Your task to perform on an android device: change the clock display to show seconds Image 0: 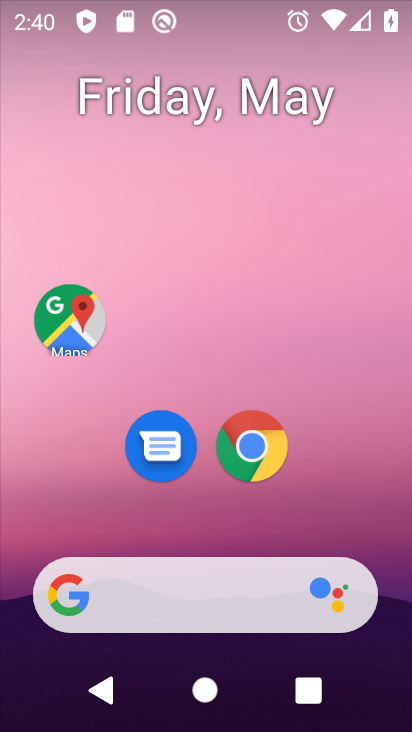
Step 0: drag from (389, 555) to (315, 162)
Your task to perform on an android device: change the clock display to show seconds Image 1: 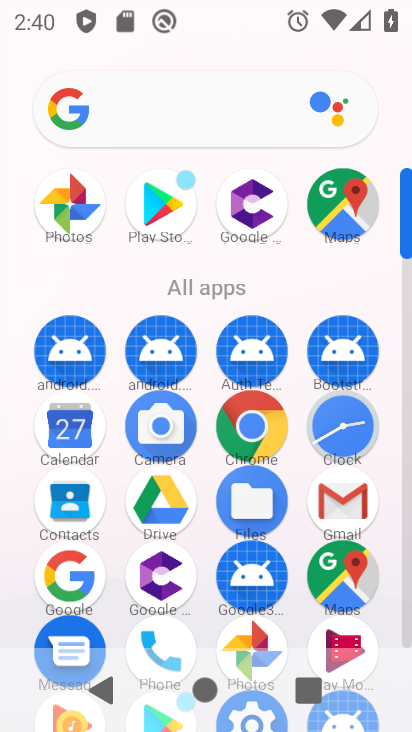
Step 1: click (349, 431)
Your task to perform on an android device: change the clock display to show seconds Image 2: 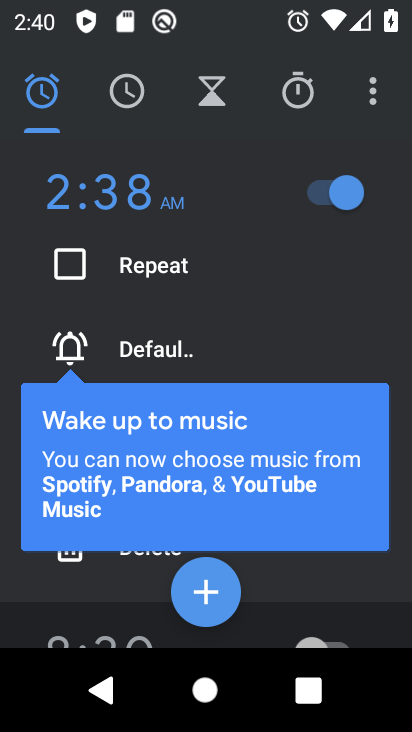
Step 2: click (362, 98)
Your task to perform on an android device: change the clock display to show seconds Image 3: 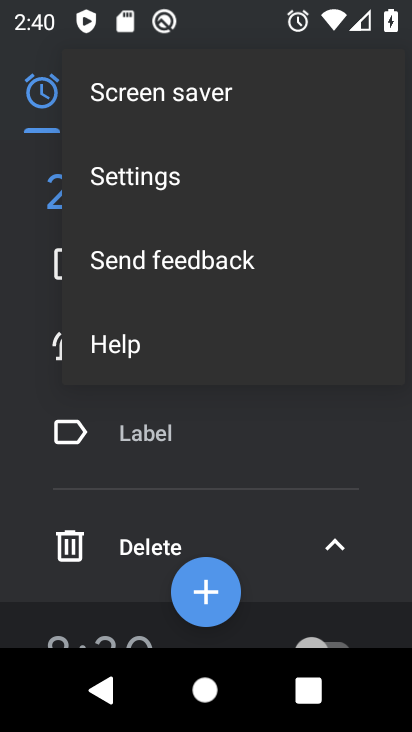
Step 3: click (228, 176)
Your task to perform on an android device: change the clock display to show seconds Image 4: 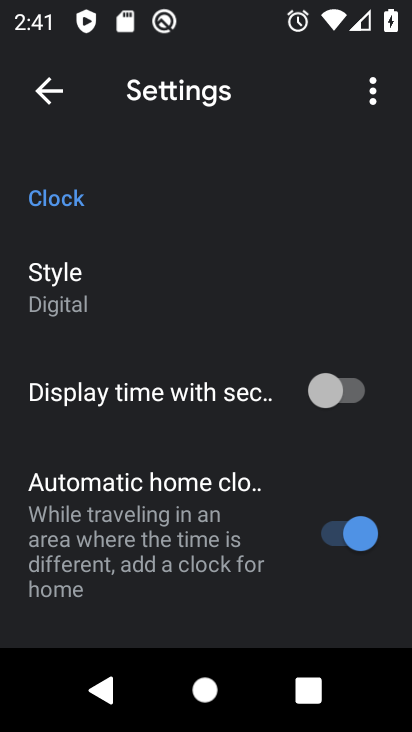
Step 4: click (346, 390)
Your task to perform on an android device: change the clock display to show seconds Image 5: 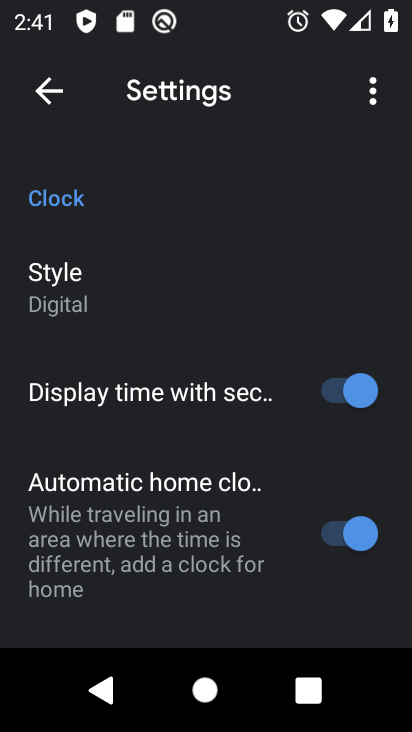
Step 5: task complete